Your task to perform on an android device: turn off notifications in google photos Image 0: 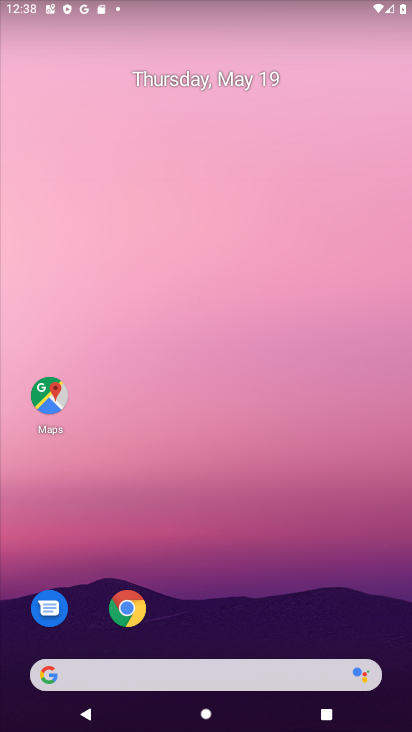
Step 0: drag from (248, 607) to (283, 165)
Your task to perform on an android device: turn off notifications in google photos Image 1: 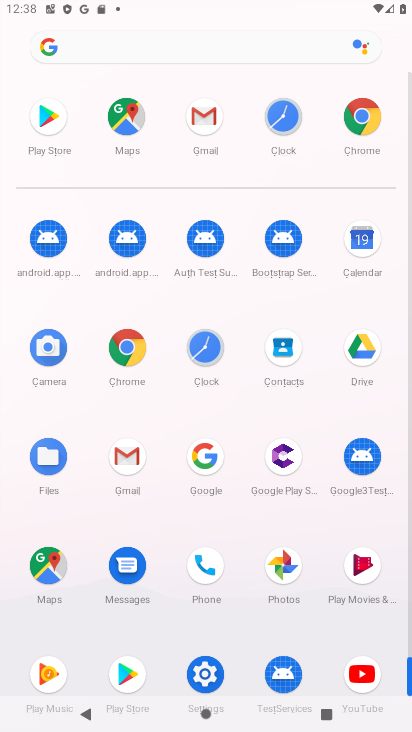
Step 1: click (278, 565)
Your task to perform on an android device: turn off notifications in google photos Image 2: 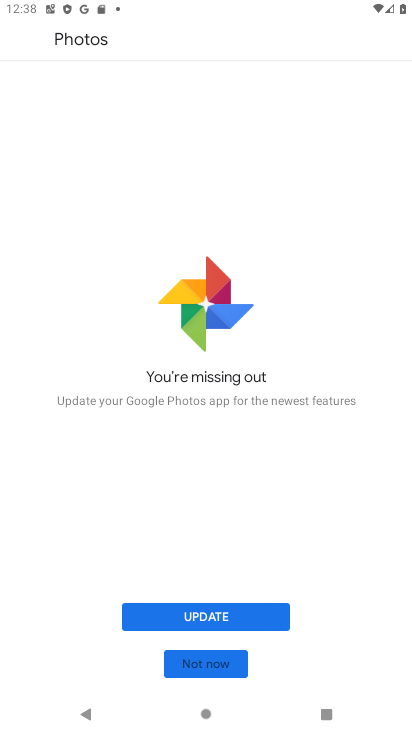
Step 2: click (223, 652)
Your task to perform on an android device: turn off notifications in google photos Image 3: 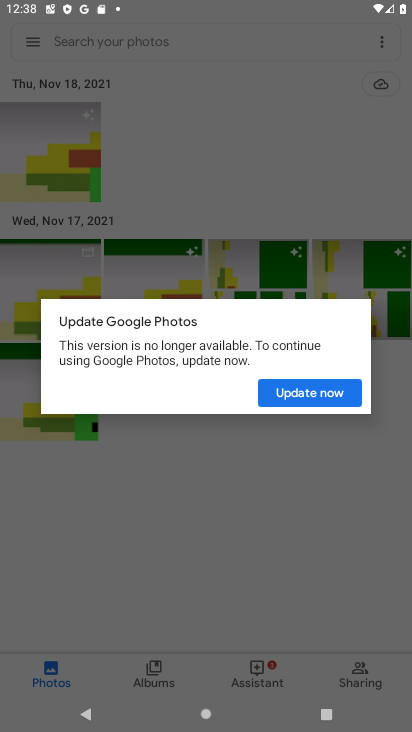
Step 3: click (294, 389)
Your task to perform on an android device: turn off notifications in google photos Image 4: 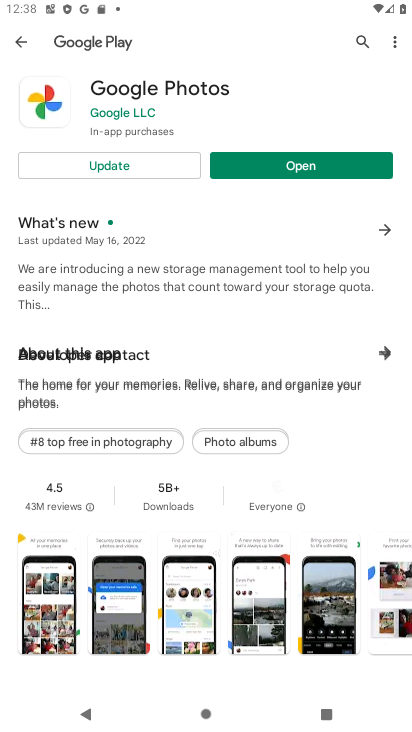
Step 4: press back button
Your task to perform on an android device: turn off notifications in google photos Image 5: 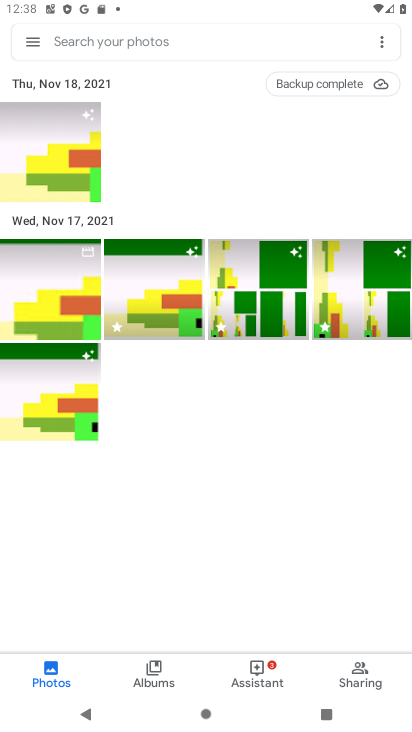
Step 5: click (31, 35)
Your task to perform on an android device: turn off notifications in google photos Image 6: 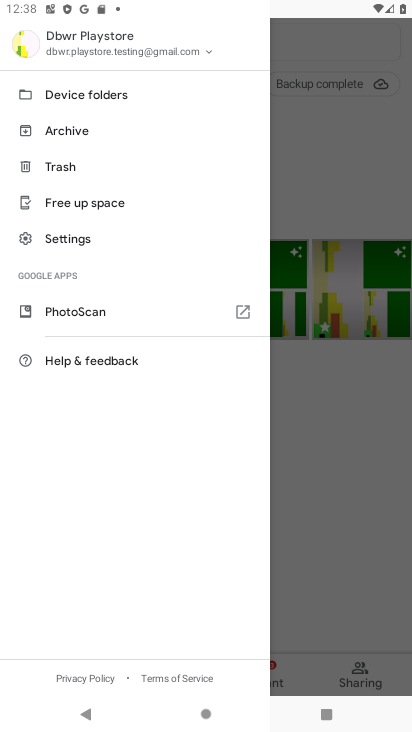
Step 6: click (75, 236)
Your task to perform on an android device: turn off notifications in google photos Image 7: 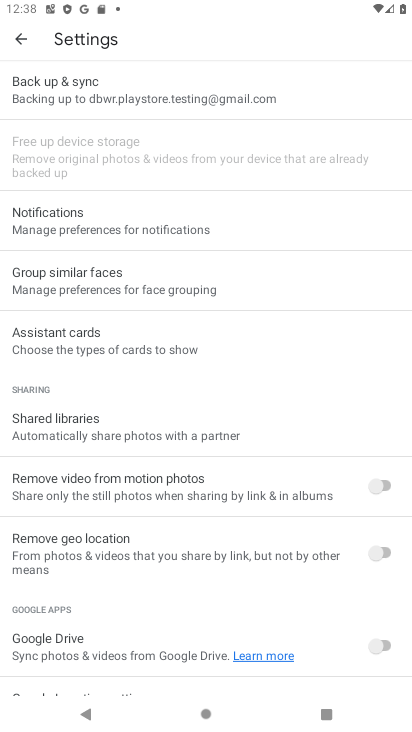
Step 7: click (133, 215)
Your task to perform on an android device: turn off notifications in google photos Image 8: 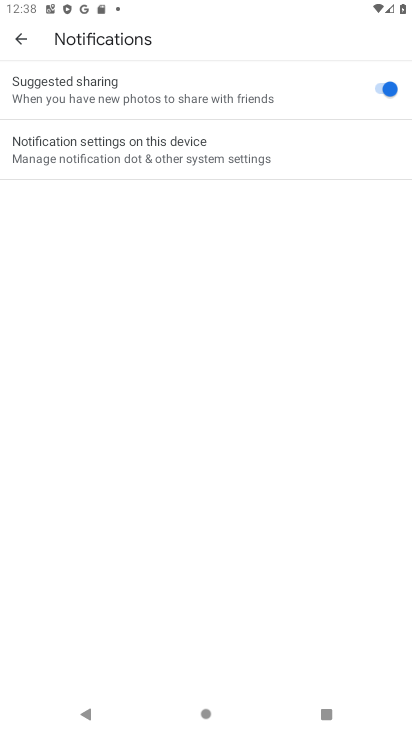
Step 8: click (103, 136)
Your task to perform on an android device: turn off notifications in google photos Image 9: 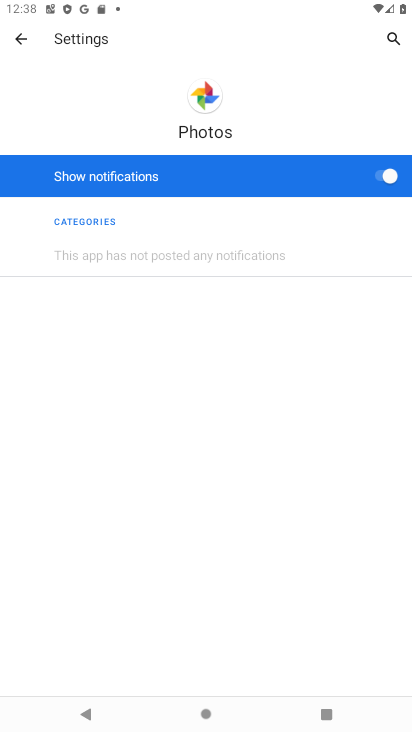
Step 9: click (391, 173)
Your task to perform on an android device: turn off notifications in google photos Image 10: 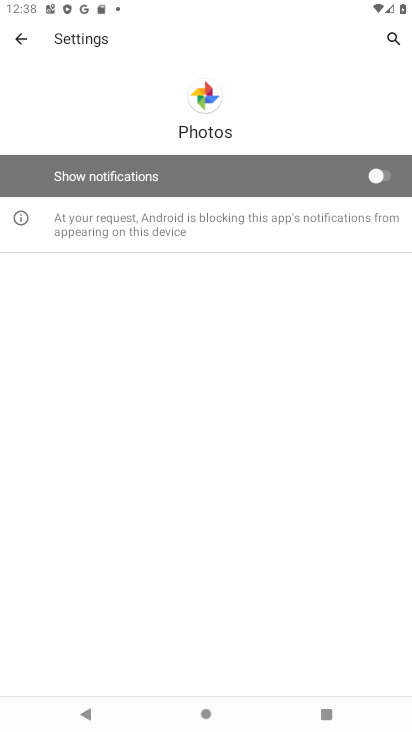
Step 10: task complete